Your task to perform on an android device: turn on the 12-hour format for clock Image 0: 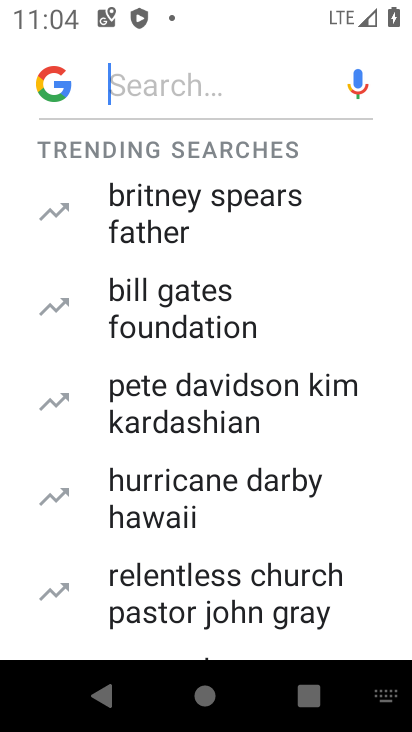
Step 0: press back button
Your task to perform on an android device: turn on the 12-hour format for clock Image 1: 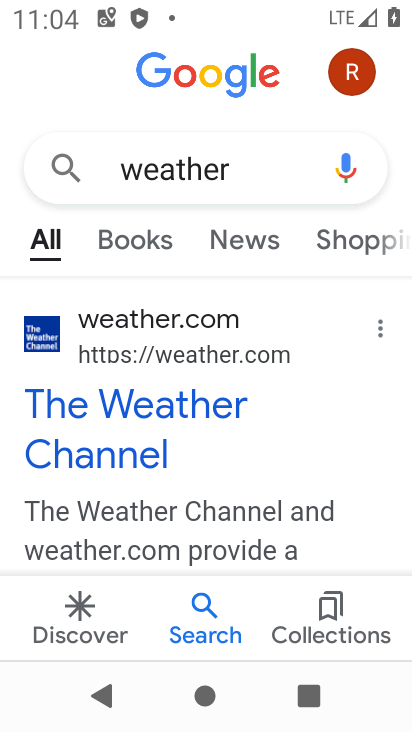
Step 1: press back button
Your task to perform on an android device: turn on the 12-hour format for clock Image 2: 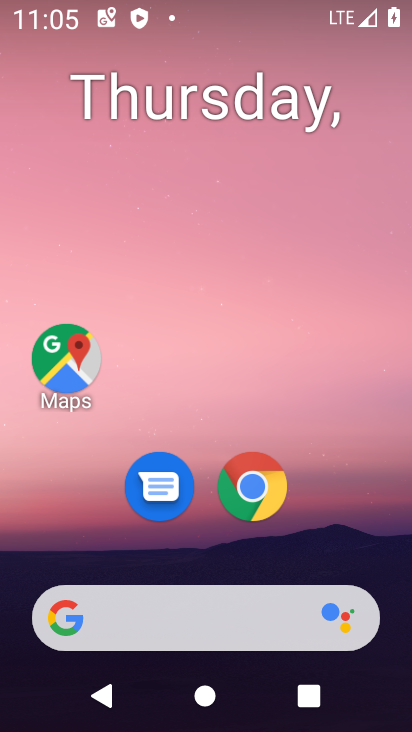
Step 2: drag from (209, 562) to (264, 5)
Your task to perform on an android device: turn on the 12-hour format for clock Image 3: 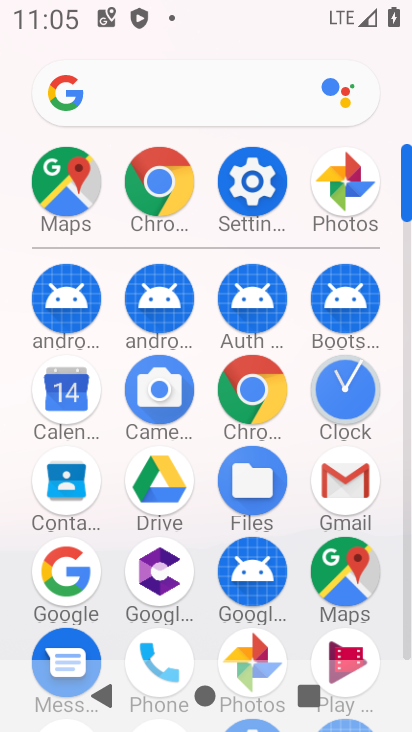
Step 3: click (348, 395)
Your task to perform on an android device: turn on the 12-hour format for clock Image 4: 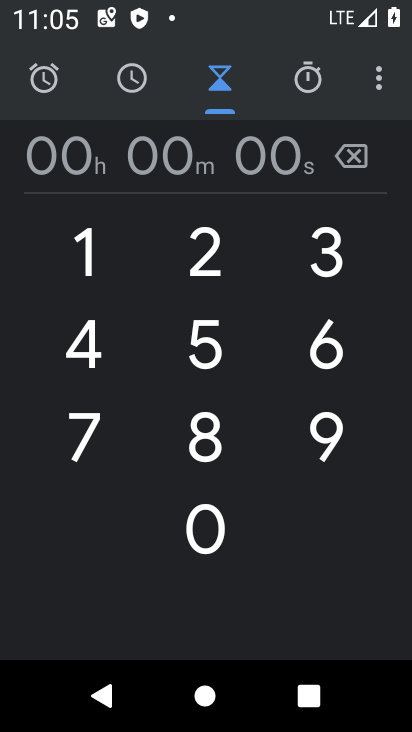
Step 4: click (379, 77)
Your task to perform on an android device: turn on the 12-hour format for clock Image 5: 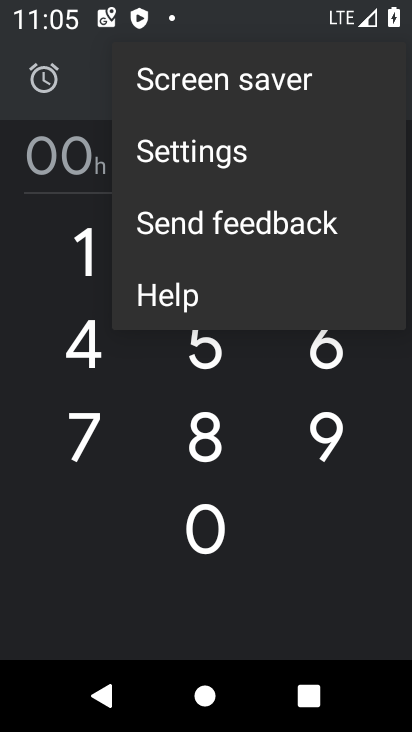
Step 5: click (222, 144)
Your task to perform on an android device: turn on the 12-hour format for clock Image 6: 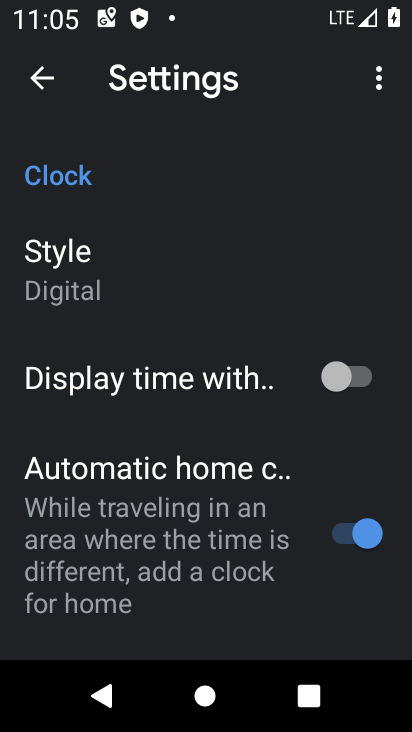
Step 6: drag from (188, 630) to (288, 160)
Your task to perform on an android device: turn on the 12-hour format for clock Image 7: 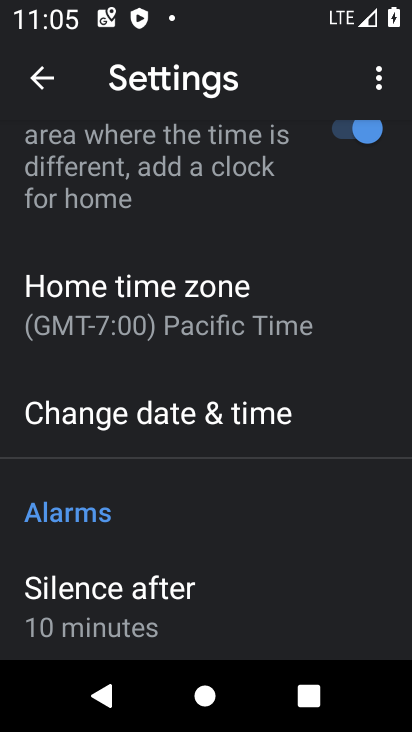
Step 7: drag from (206, 196) to (173, 668)
Your task to perform on an android device: turn on the 12-hour format for clock Image 8: 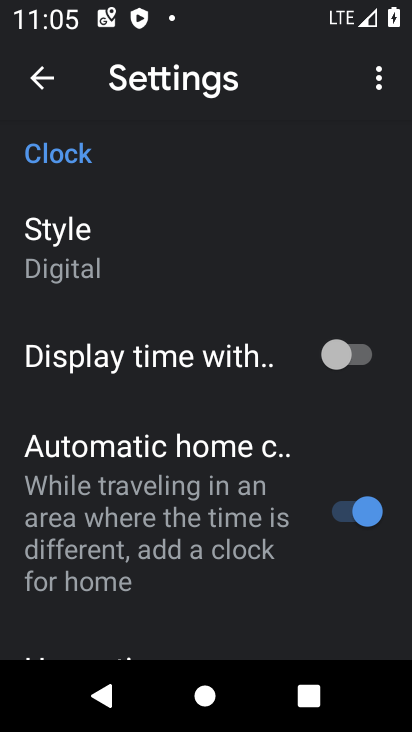
Step 8: drag from (171, 568) to (225, 126)
Your task to perform on an android device: turn on the 12-hour format for clock Image 9: 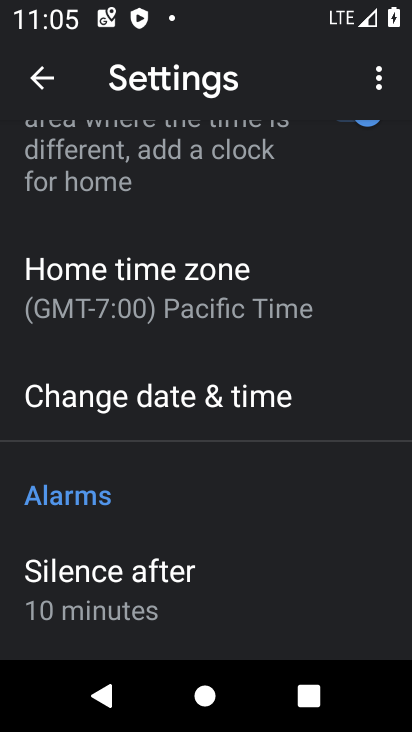
Step 9: click (156, 407)
Your task to perform on an android device: turn on the 12-hour format for clock Image 10: 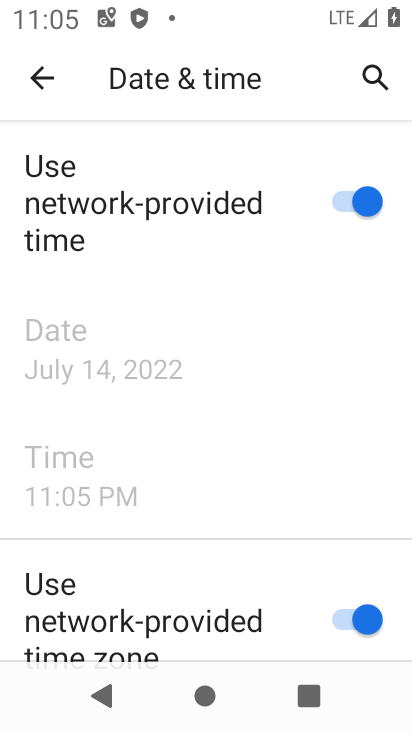
Step 10: task complete